Your task to perform on an android device: open a new tab in the chrome app Image 0: 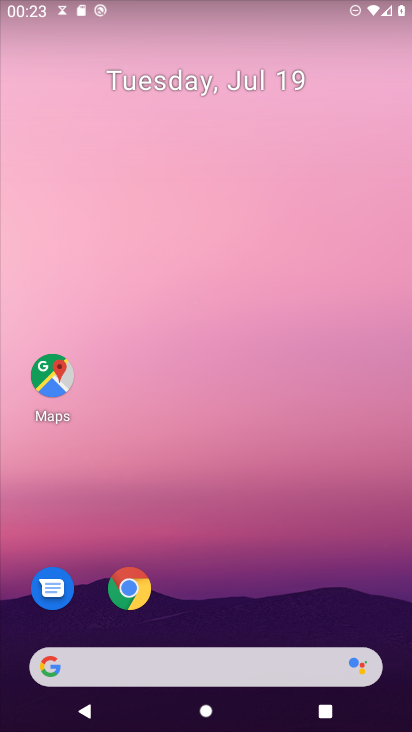
Step 0: click (133, 587)
Your task to perform on an android device: open a new tab in the chrome app Image 1: 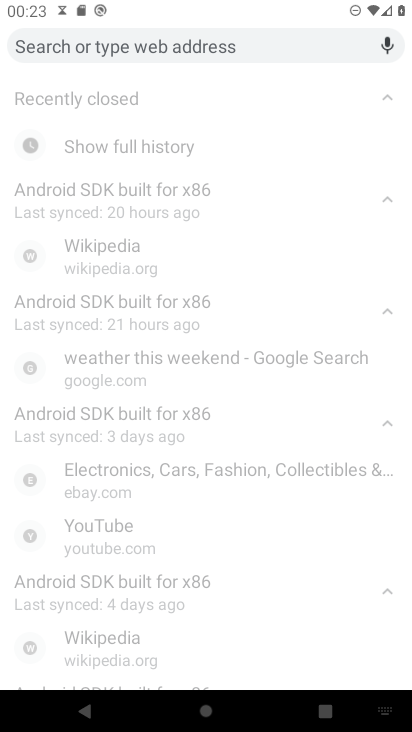
Step 1: press back button
Your task to perform on an android device: open a new tab in the chrome app Image 2: 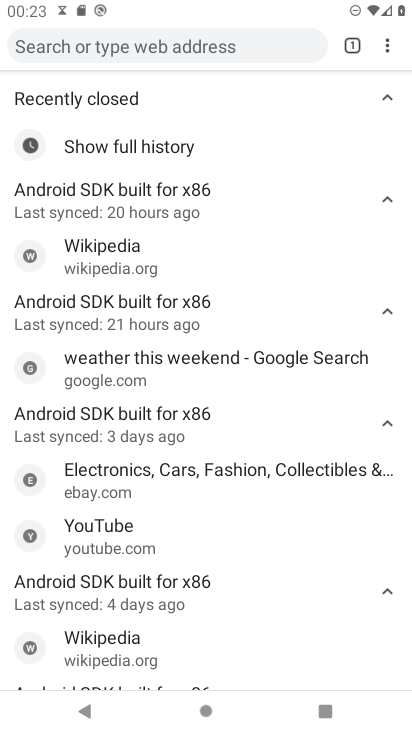
Step 2: click (347, 46)
Your task to perform on an android device: open a new tab in the chrome app Image 3: 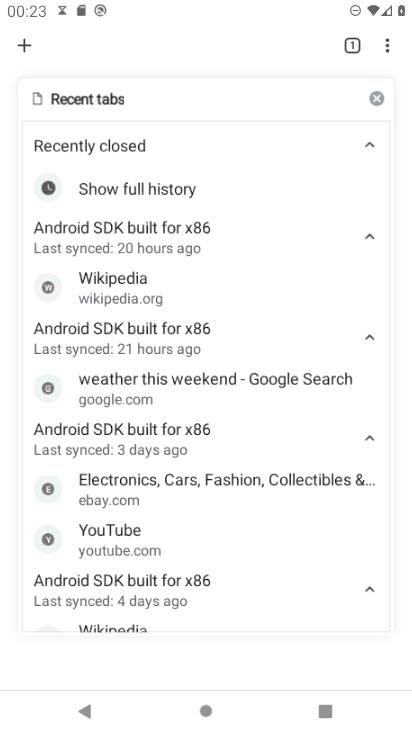
Step 3: click (25, 39)
Your task to perform on an android device: open a new tab in the chrome app Image 4: 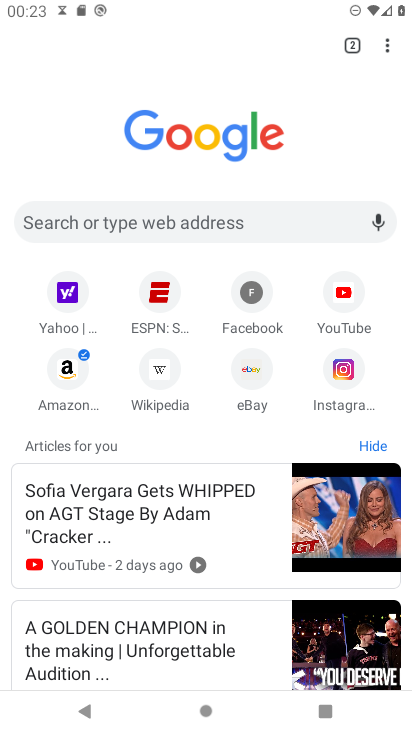
Step 4: task complete